Your task to perform on an android device: Open internet settings Image 0: 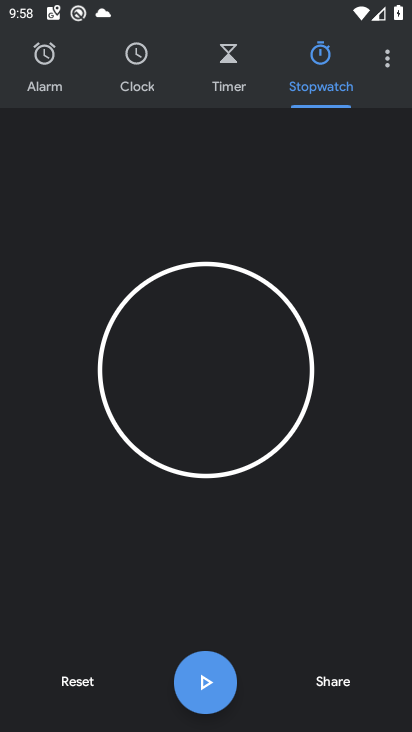
Step 0: press home button
Your task to perform on an android device: Open internet settings Image 1: 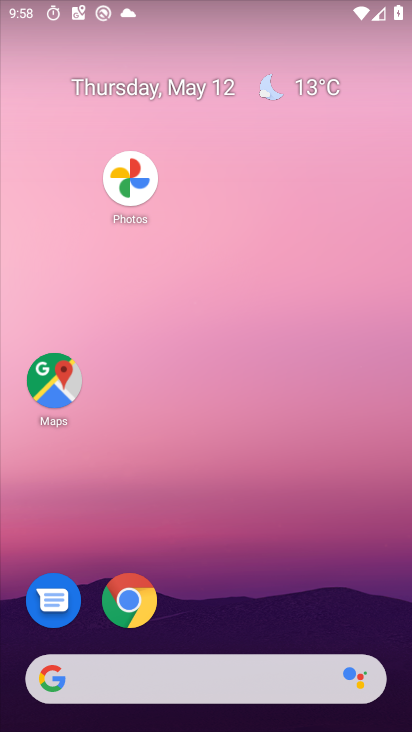
Step 1: drag from (274, 425) to (195, 101)
Your task to perform on an android device: Open internet settings Image 2: 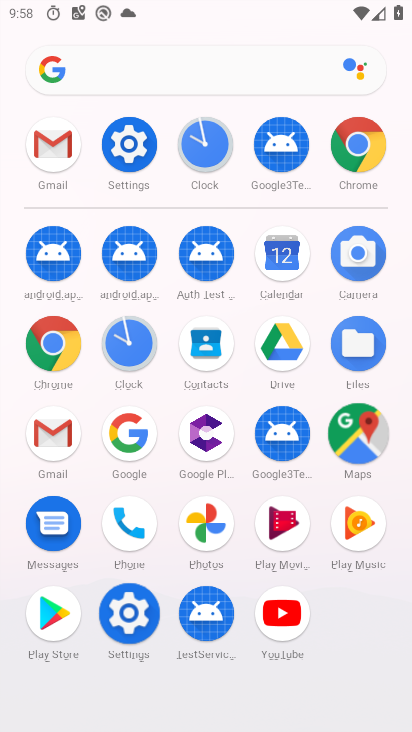
Step 2: click (117, 146)
Your task to perform on an android device: Open internet settings Image 3: 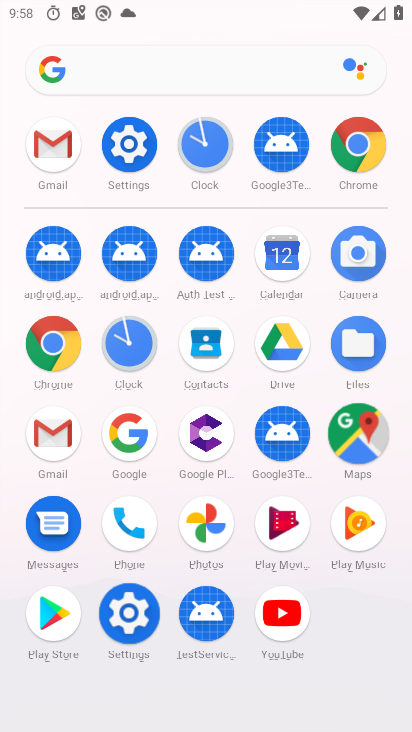
Step 3: click (117, 146)
Your task to perform on an android device: Open internet settings Image 4: 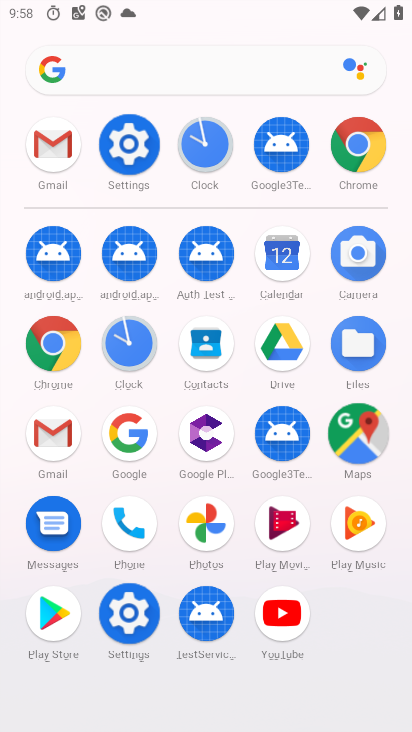
Step 4: click (117, 146)
Your task to perform on an android device: Open internet settings Image 5: 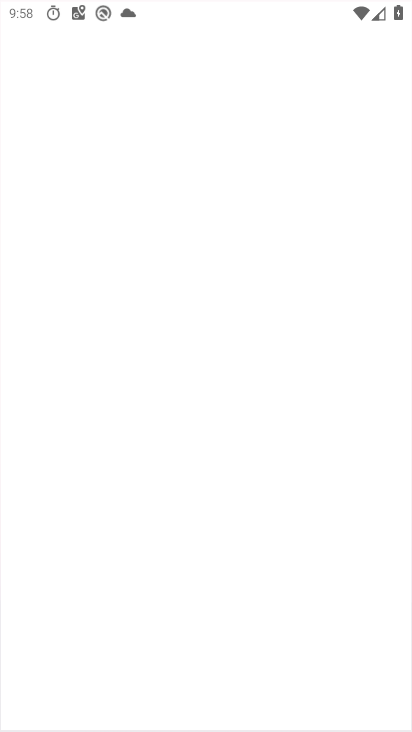
Step 5: click (117, 146)
Your task to perform on an android device: Open internet settings Image 6: 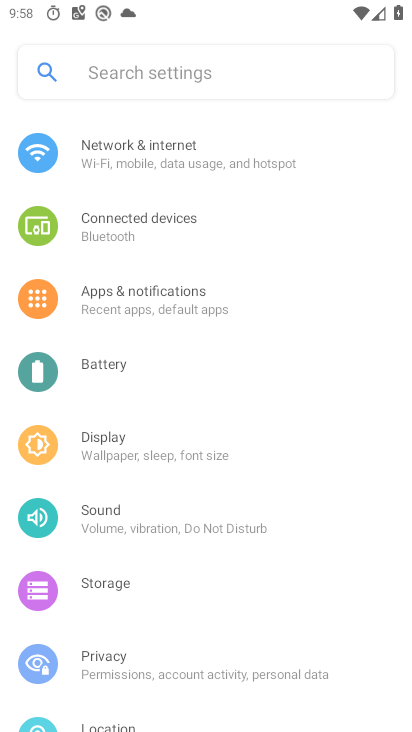
Step 6: click (119, 144)
Your task to perform on an android device: Open internet settings Image 7: 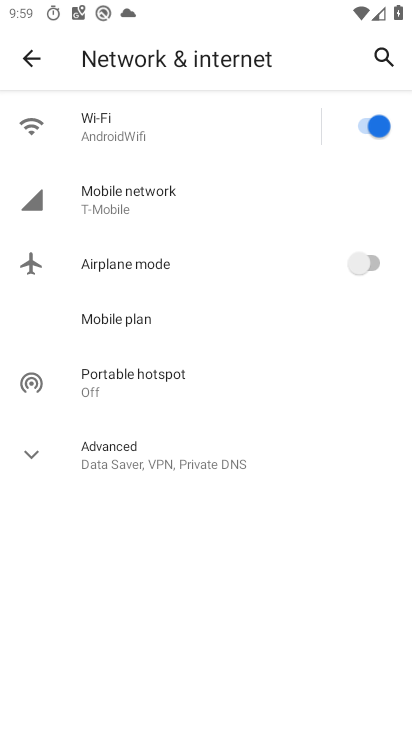
Step 7: click (36, 63)
Your task to perform on an android device: Open internet settings Image 8: 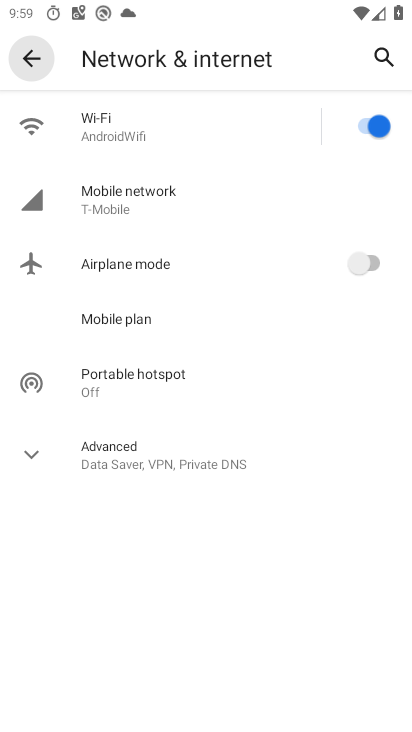
Step 8: task complete